Your task to perform on an android device: When is my next meeting? Image 0: 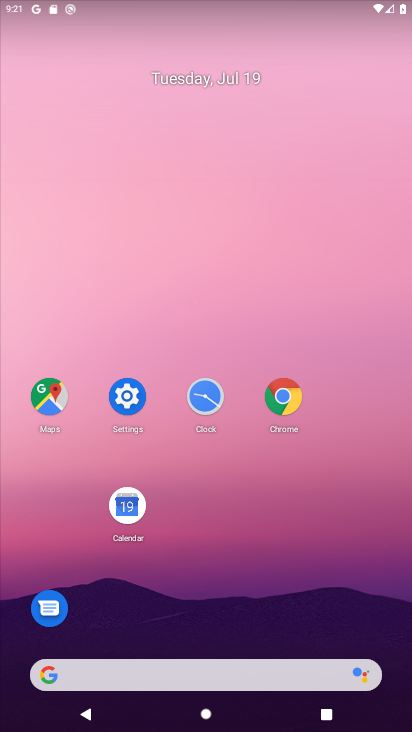
Step 0: drag from (371, 593) to (370, 60)
Your task to perform on an android device: When is my next meeting? Image 1: 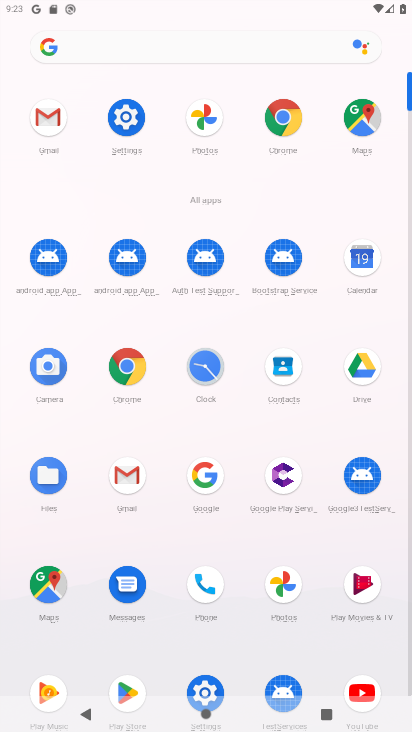
Step 1: click (352, 272)
Your task to perform on an android device: When is my next meeting? Image 2: 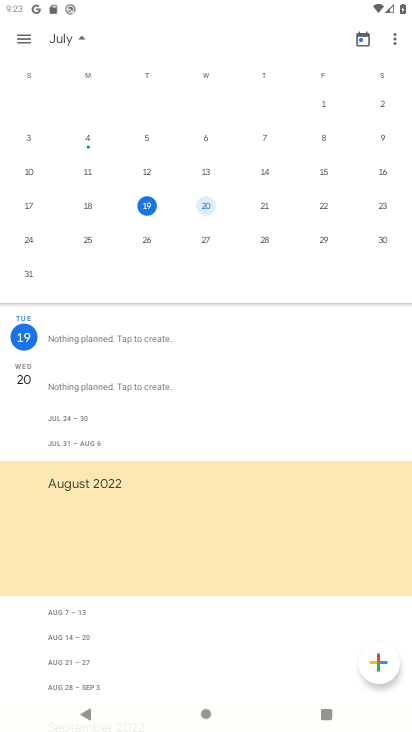
Step 2: click (20, 34)
Your task to perform on an android device: When is my next meeting? Image 3: 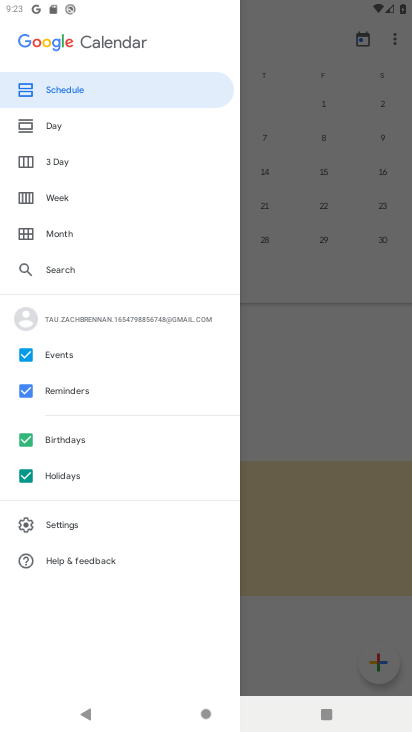
Step 3: click (65, 96)
Your task to perform on an android device: When is my next meeting? Image 4: 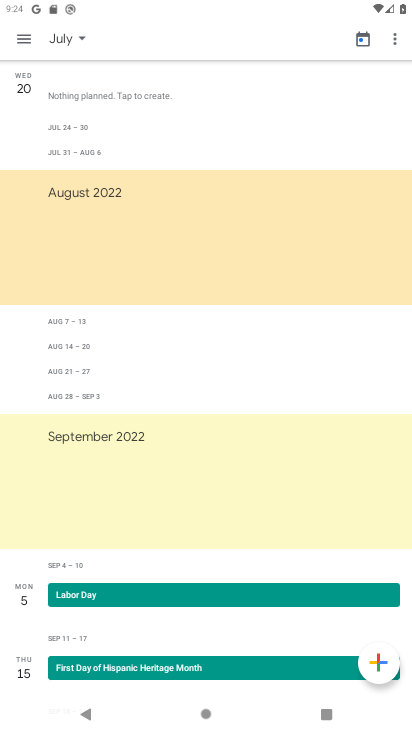
Step 4: task complete